Your task to perform on an android device: find which apps use the phone's location Image 0: 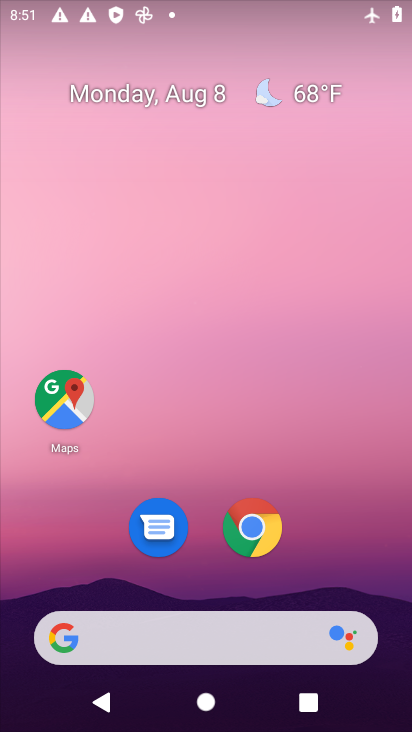
Step 0: drag from (388, 707) to (350, 286)
Your task to perform on an android device: find which apps use the phone's location Image 1: 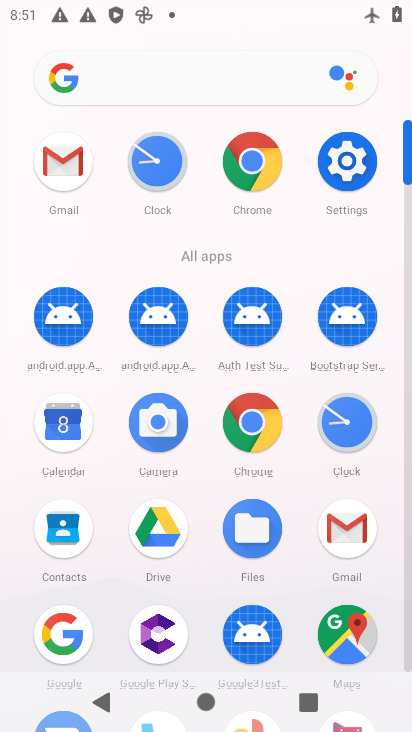
Step 1: click (341, 166)
Your task to perform on an android device: find which apps use the phone's location Image 2: 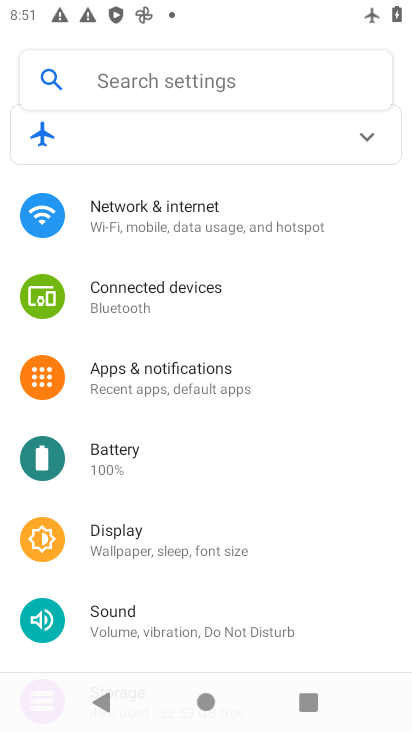
Step 2: drag from (306, 585) to (311, 372)
Your task to perform on an android device: find which apps use the phone's location Image 3: 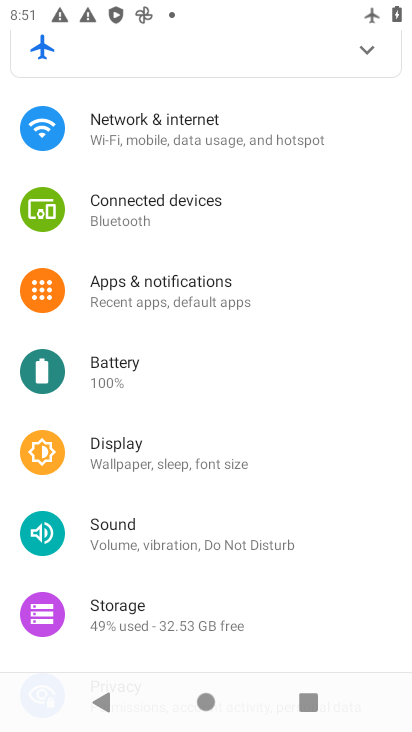
Step 3: drag from (269, 572) to (278, 304)
Your task to perform on an android device: find which apps use the phone's location Image 4: 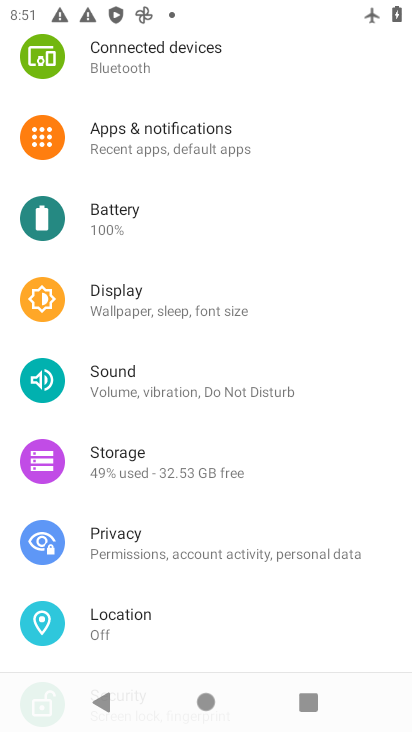
Step 4: click (105, 610)
Your task to perform on an android device: find which apps use the phone's location Image 5: 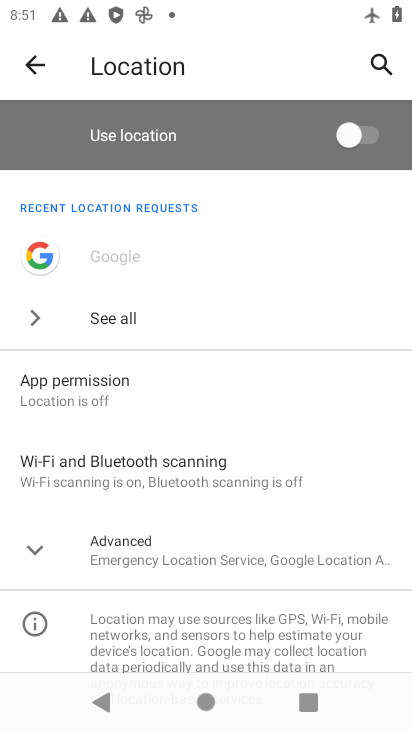
Step 5: click (34, 545)
Your task to perform on an android device: find which apps use the phone's location Image 6: 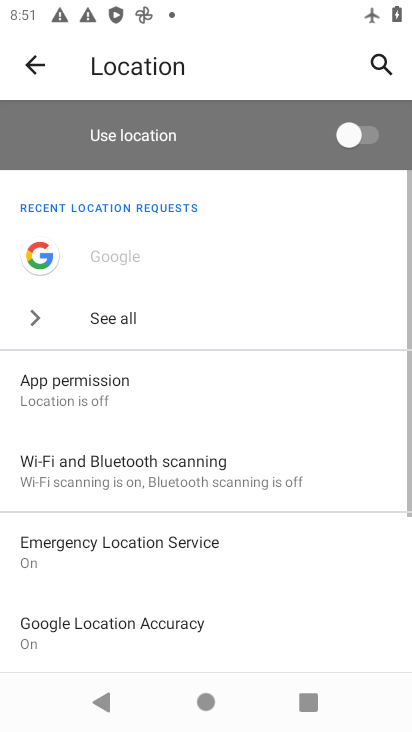
Step 6: click (72, 388)
Your task to perform on an android device: find which apps use the phone's location Image 7: 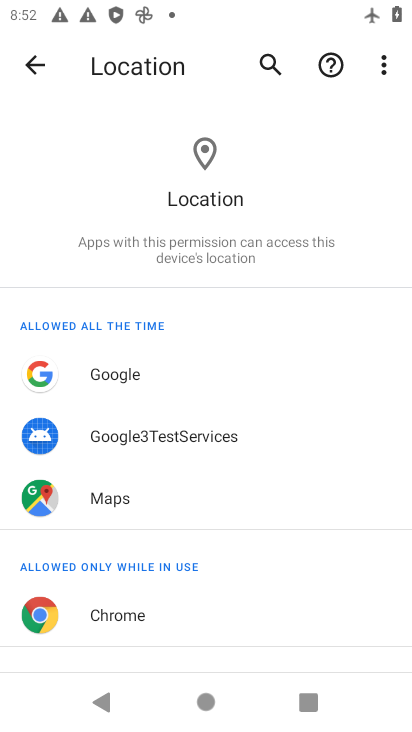
Step 7: task complete